Your task to perform on an android device: turn off sleep mode Image 0: 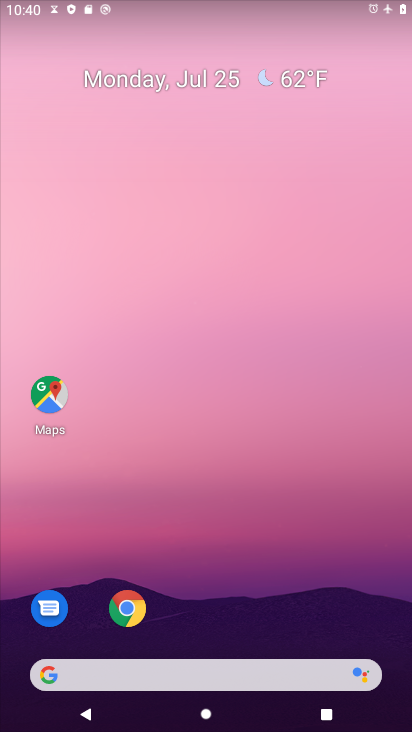
Step 0: drag from (236, 668) to (325, 102)
Your task to perform on an android device: turn off sleep mode Image 1: 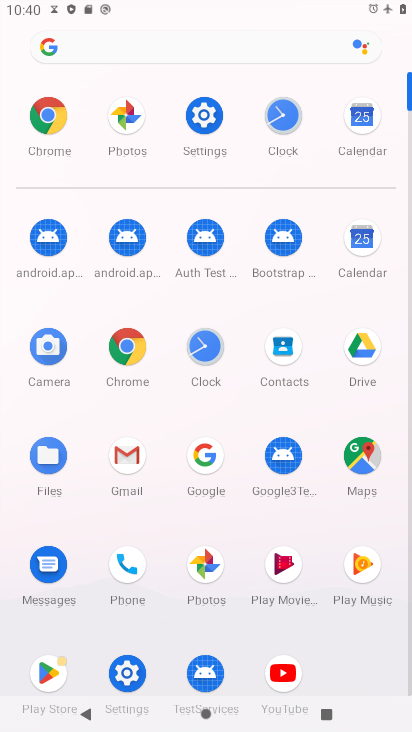
Step 1: click (128, 670)
Your task to perform on an android device: turn off sleep mode Image 2: 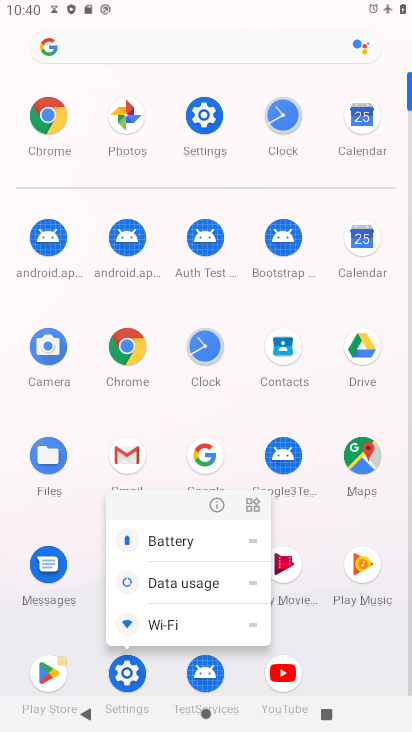
Step 2: click (126, 673)
Your task to perform on an android device: turn off sleep mode Image 3: 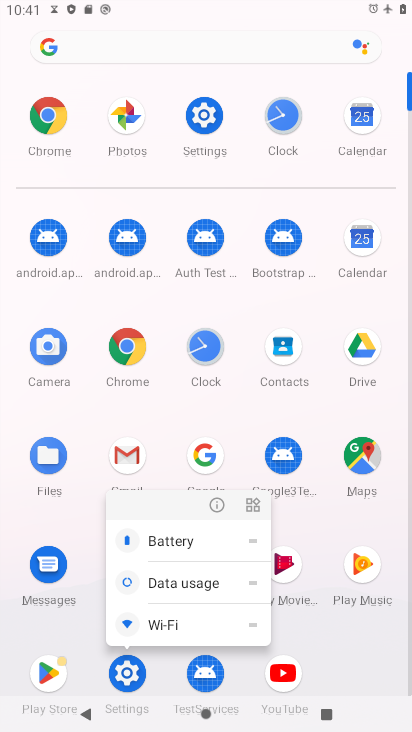
Step 3: click (129, 673)
Your task to perform on an android device: turn off sleep mode Image 4: 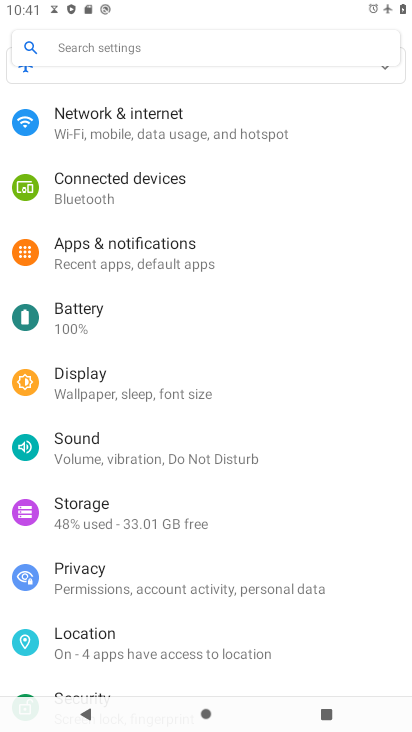
Step 4: click (102, 382)
Your task to perform on an android device: turn off sleep mode Image 5: 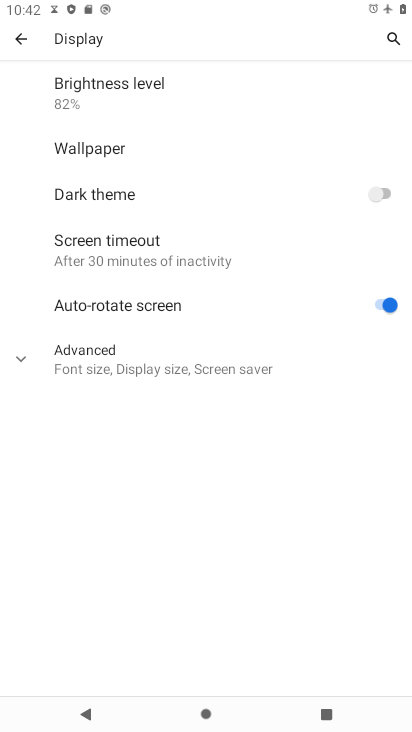
Step 5: click (171, 267)
Your task to perform on an android device: turn off sleep mode Image 6: 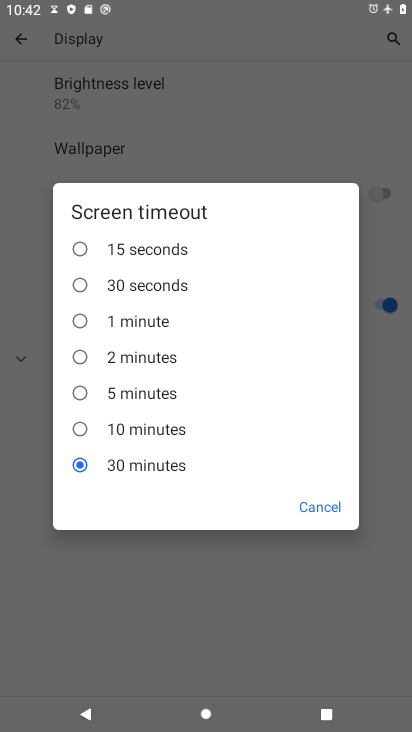
Step 6: click (310, 517)
Your task to perform on an android device: turn off sleep mode Image 7: 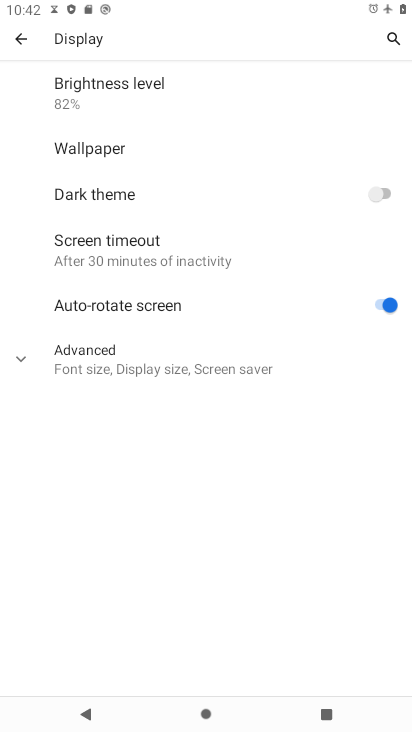
Step 7: task complete